Your task to perform on an android device: turn off wifi Image 0: 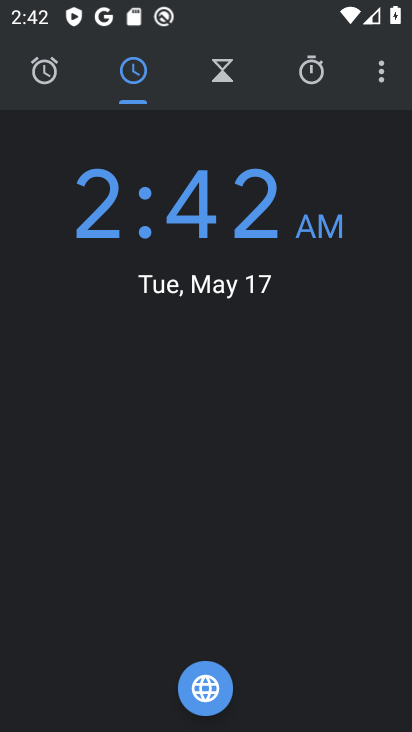
Step 0: press home button
Your task to perform on an android device: turn off wifi Image 1: 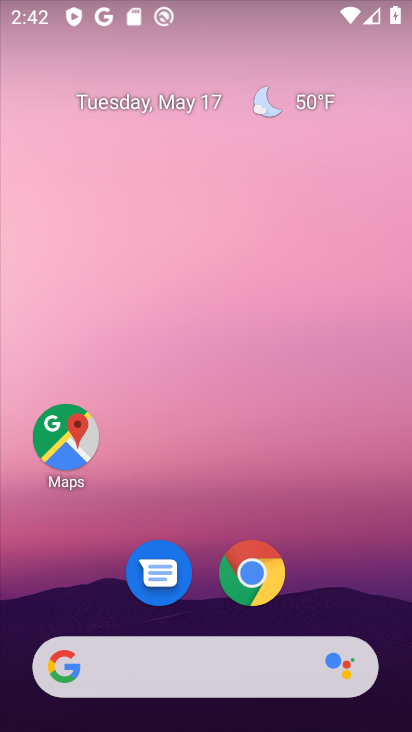
Step 1: drag from (358, 484) to (376, 133)
Your task to perform on an android device: turn off wifi Image 2: 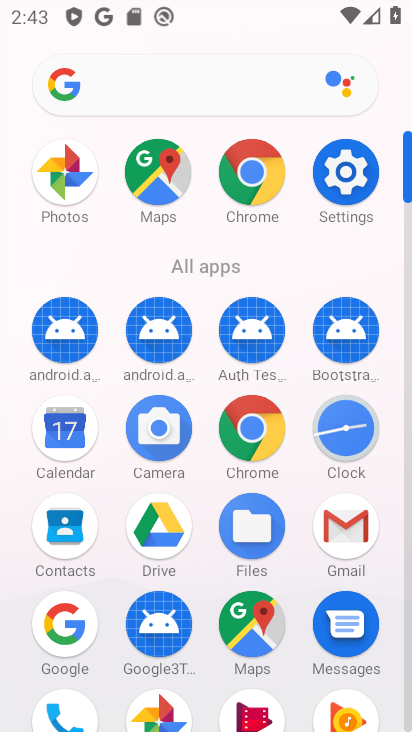
Step 2: click (354, 191)
Your task to perform on an android device: turn off wifi Image 3: 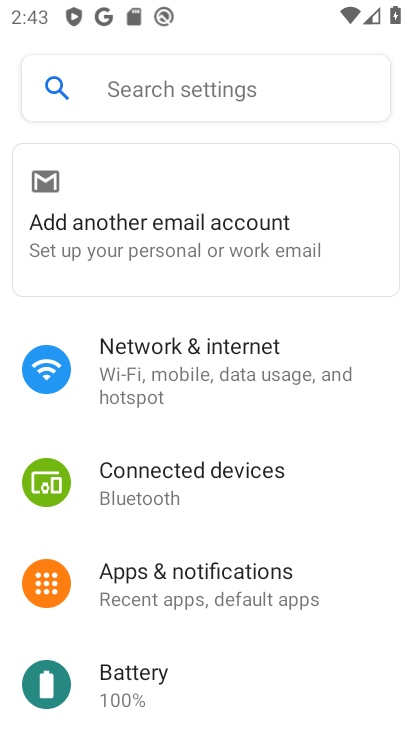
Step 3: click (237, 375)
Your task to perform on an android device: turn off wifi Image 4: 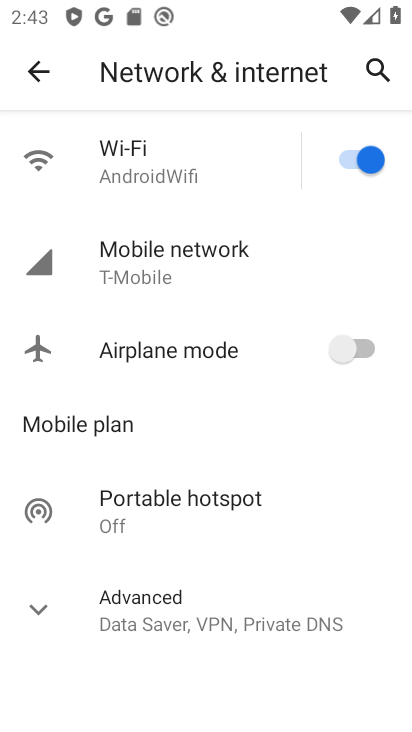
Step 4: click (357, 151)
Your task to perform on an android device: turn off wifi Image 5: 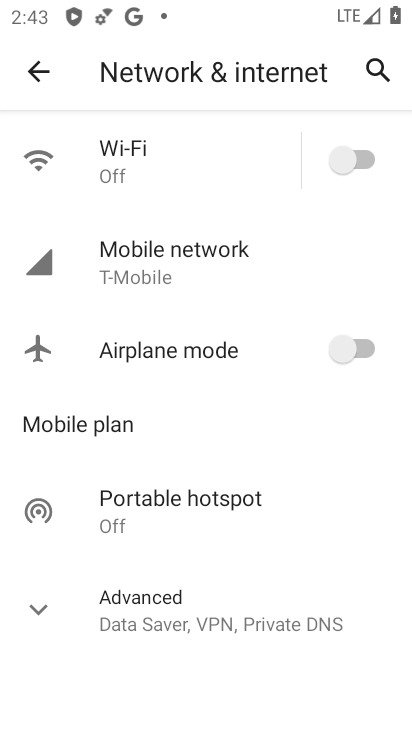
Step 5: task complete